Your task to perform on an android device: turn off javascript in the chrome app Image 0: 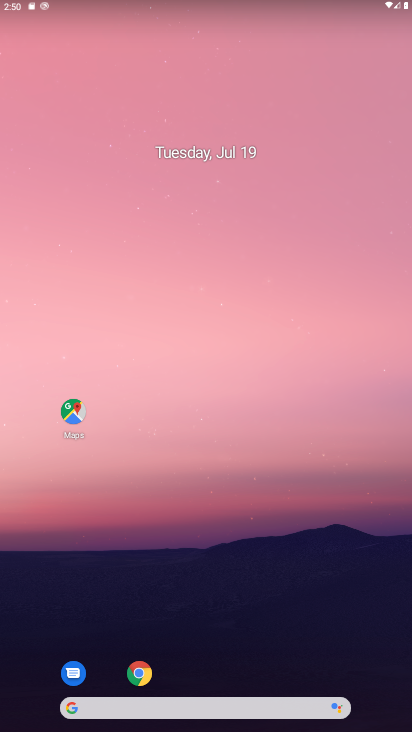
Step 0: drag from (219, 660) to (256, 0)
Your task to perform on an android device: turn off javascript in the chrome app Image 1: 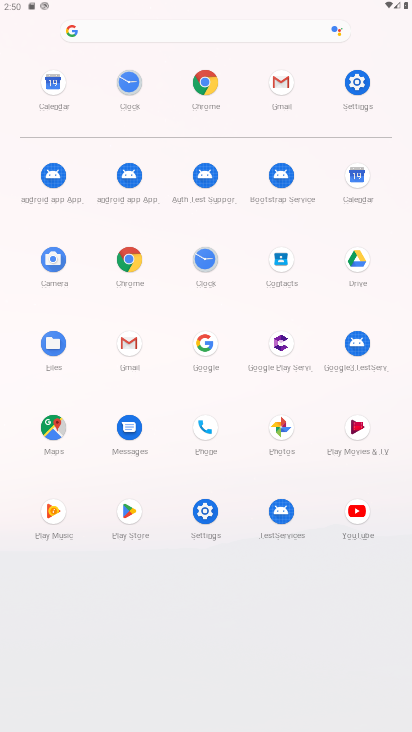
Step 1: click (116, 672)
Your task to perform on an android device: turn off javascript in the chrome app Image 2: 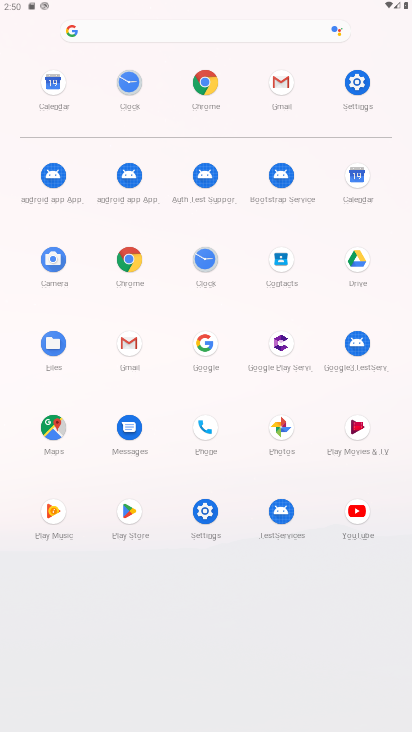
Step 2: click (118, 257)
Your task to perform on an android device: turn off javascript in the chrome app Image 3: 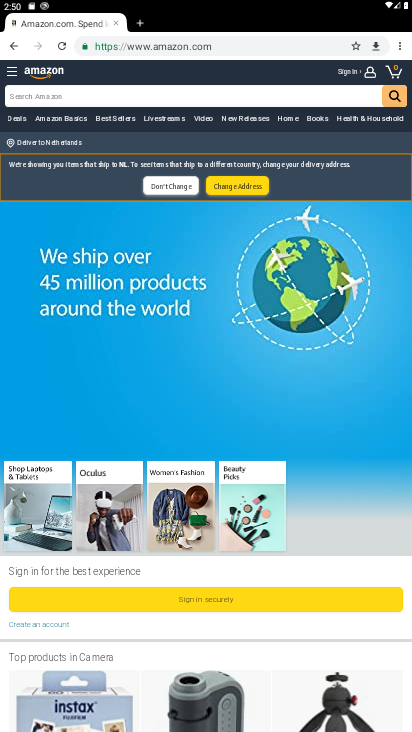
Step 3: click (398, 51)
Your task to perform on an android device: turn off javascript in the chrome app Image 4: 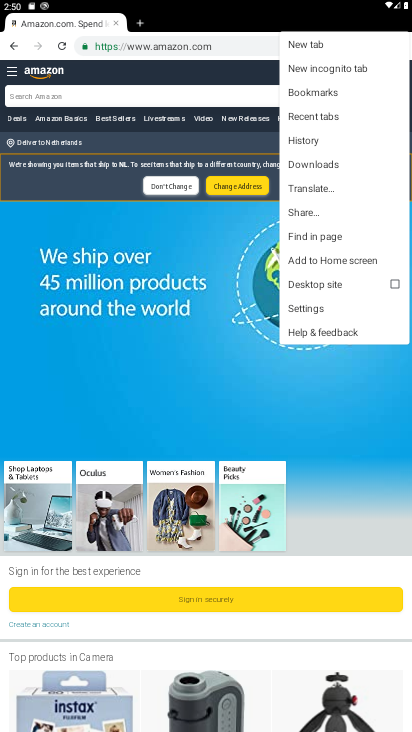
Step 4: click (322, 309)
Your task to perform on an android device: turn off javascript in the chrome app Image 5: 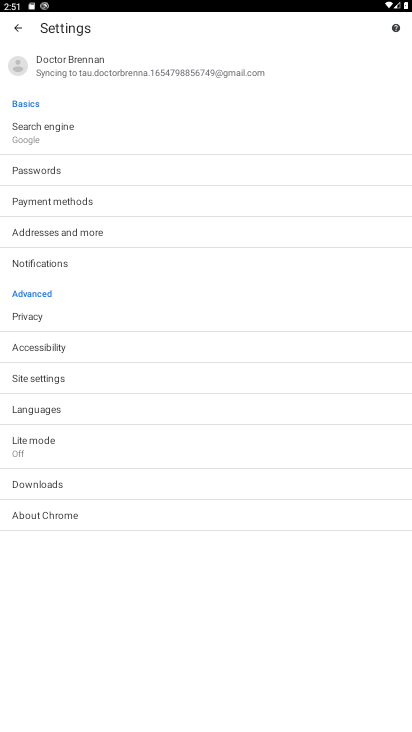
Step 5: click (39, 379)
Your task to perform on an android device: turn off javascript in the chrome app Image 6: 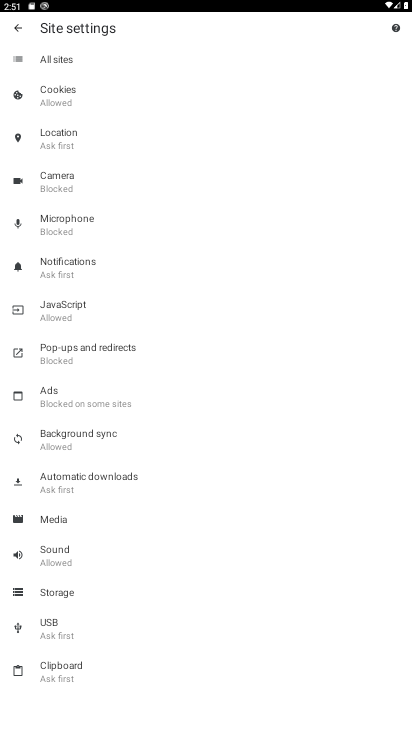
Step 6: click (58, 317)
Your task to perform on an android device: turn off javascript in the chrome app Image 7: 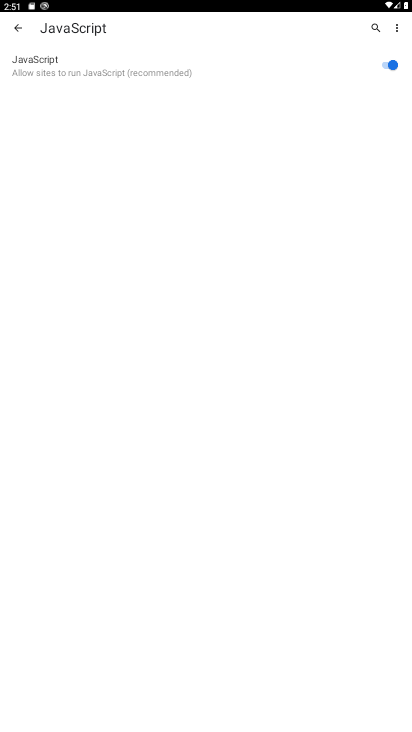
Step 7: click (364, 60)
Your task to perform on an android device: turn off javascript in the chrome app Image 8: 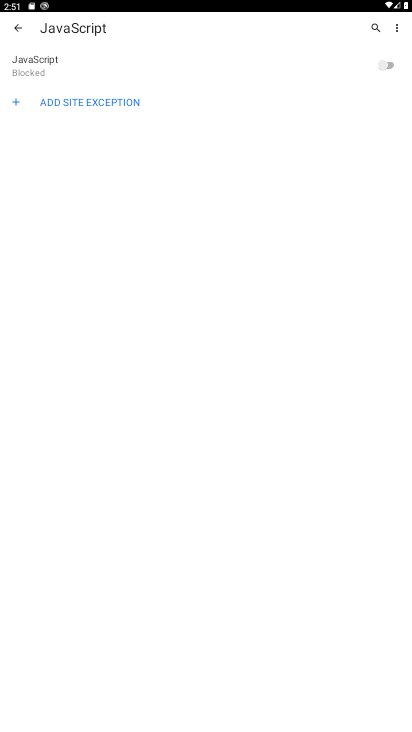
Step 8: task complete